Your task to perform on an android device: Open Amazon Image 0: 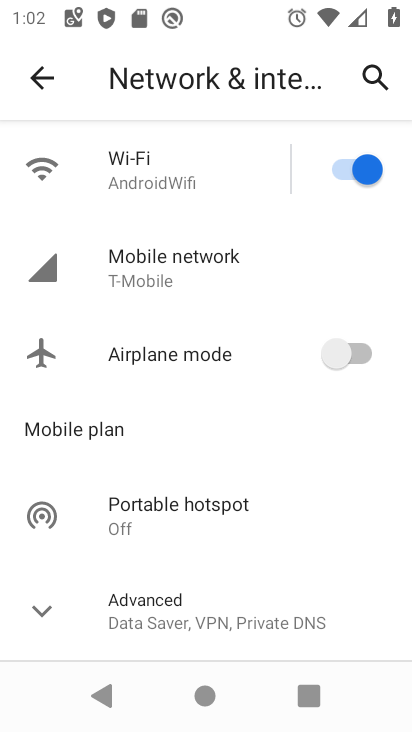
Step 0: press home button
Your task to perform on an android device: Open Amazon Image 1: 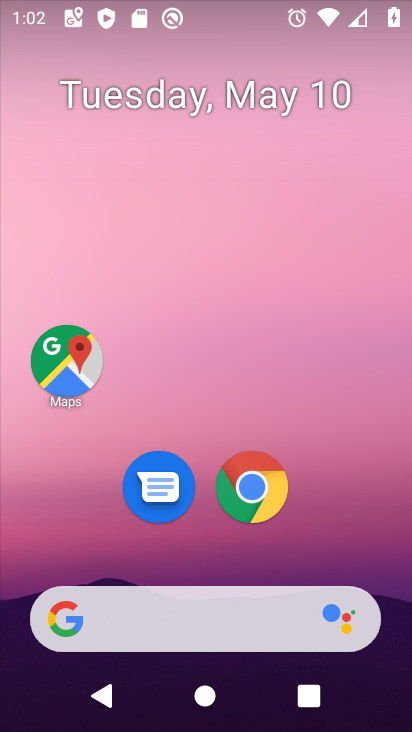
Step 1: click (239, 506)
Your task to perform on an android device: Open Amazon Image 2: 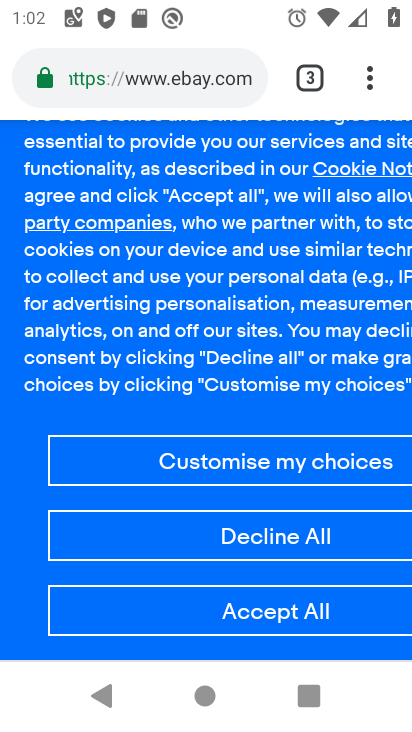
Step 2: click (310, 77)
Your task to perform on an android device: Open Amazon Image 3: 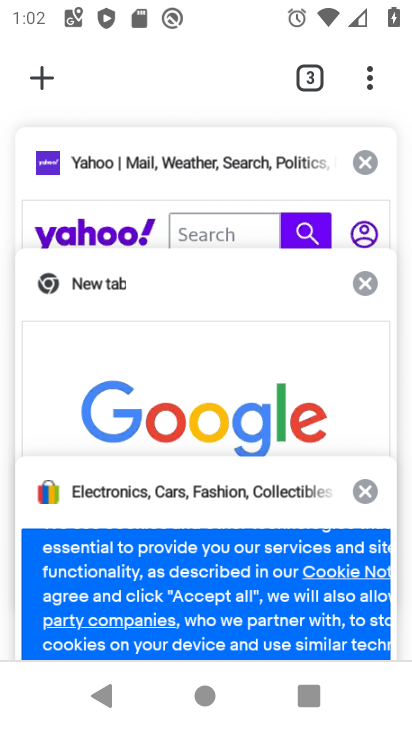
Step 3: click (50, 80)
Your task to perform on an android device: Open Amazon Image 4: 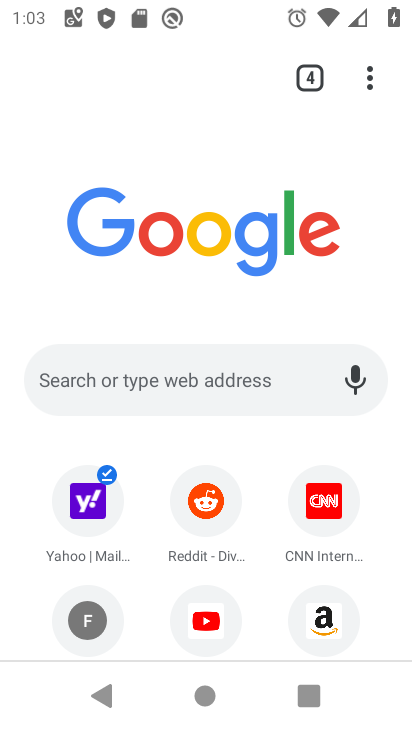
Step 4: click (342, 639)
Your task to perform on an android device: Open Amazon Image 5: 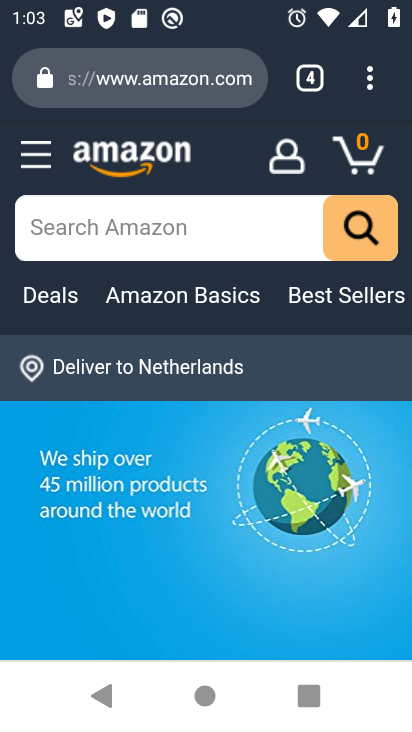
Step 5: task complete